Your task to perform on an android device: turn off improve location accuracy Image 0: 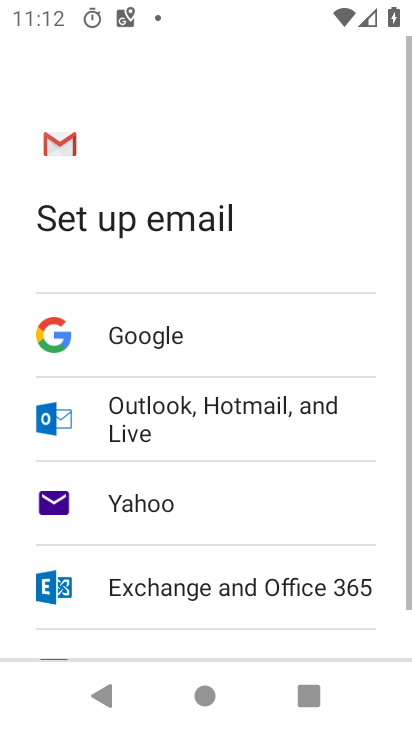
Step 0: press home button
Your task to perform on an android device: turn off improve location accuracy Image 1: 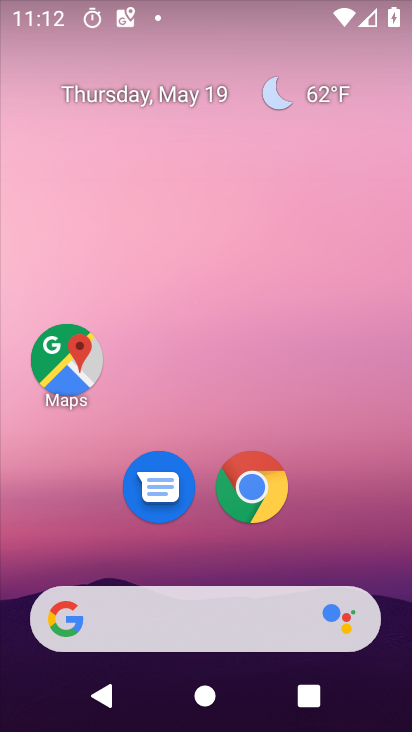
Step 1: drag from (295, 544) to (290, 222)
Your task to perform on an android device: turn off improve location accuracy Image 2: 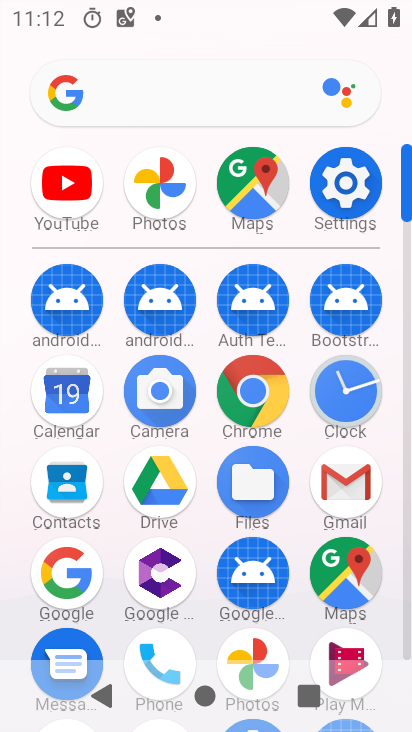
Step 2: click (340, 187)
Your task to perform on an android device: turn off improve location accuracy Image 3: 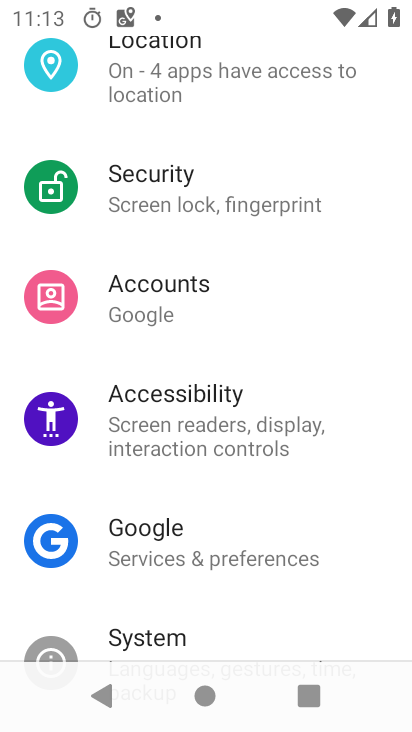
Step 3: click (255, 70)
Your task to perform on an android device: turn off improve location accuracy Image 4: 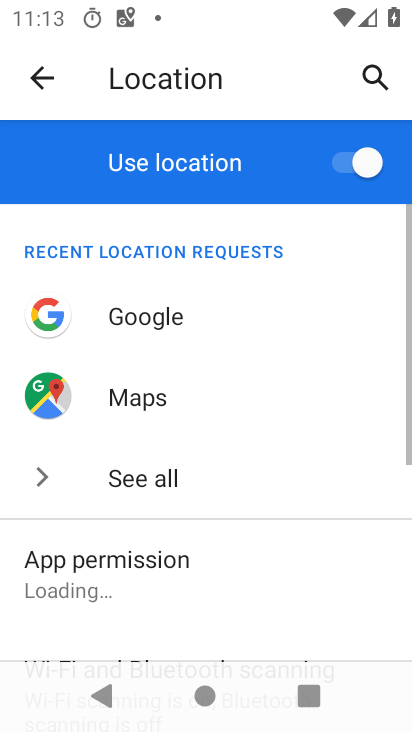
Step 4: drag from (332, 554) to (345, 136)
Your task to perform on an android device: turn off improve location accuracy Image 5: 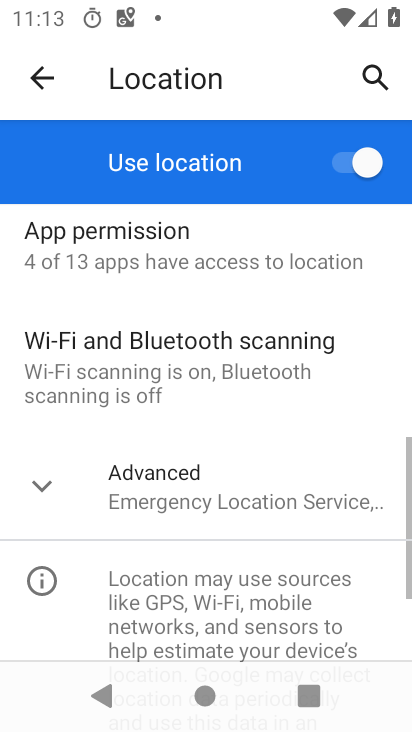
Step 5: click (215, 496)
Your task to perform on an android device: turn off improve location accuracy Image 6: 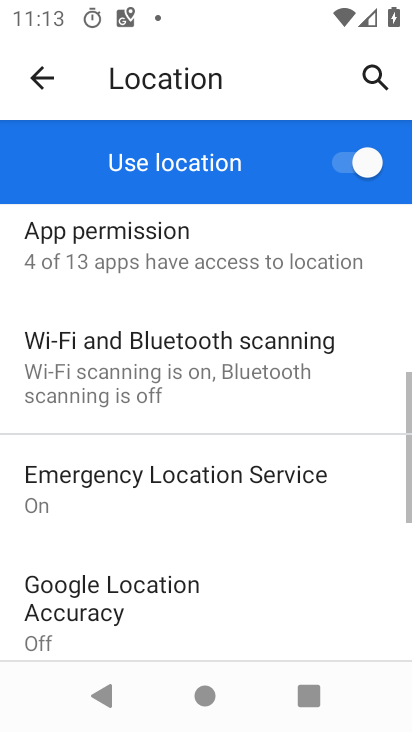
Step 6: drag from (242, 627) to (315, 219)
Your task to perform on an android device: turn off improve location accuracy Image 7: 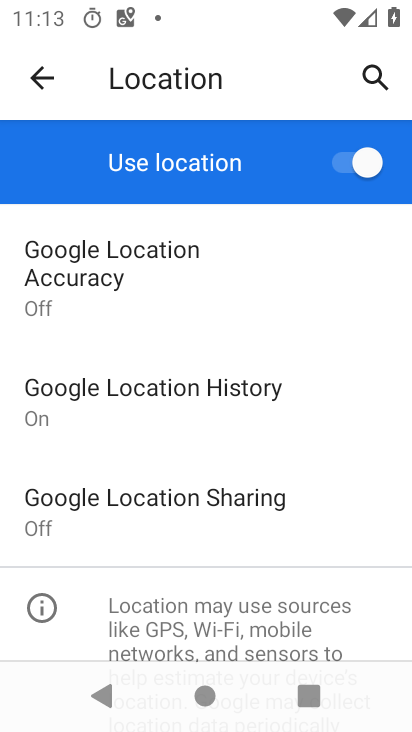
Step 7: click (129, 268)
Your task to perform on an android device: turn off improve location accuracy Image 8: 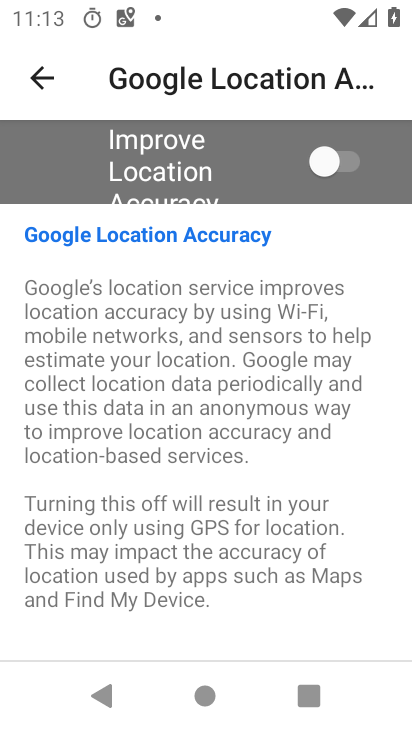
Step 8: task complete